Your task to perform on an android device: Go to accessibility settings Image 0: 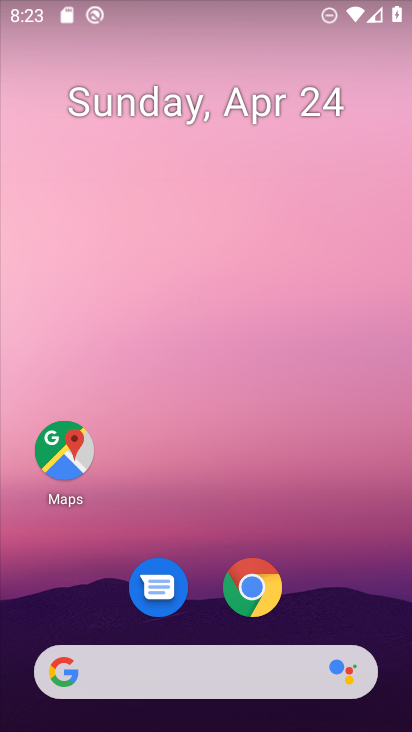
Step 0: drag from (354, 564) to (338, 95)
Your task to perform on an android device: Go to accessibility settings Image 1: 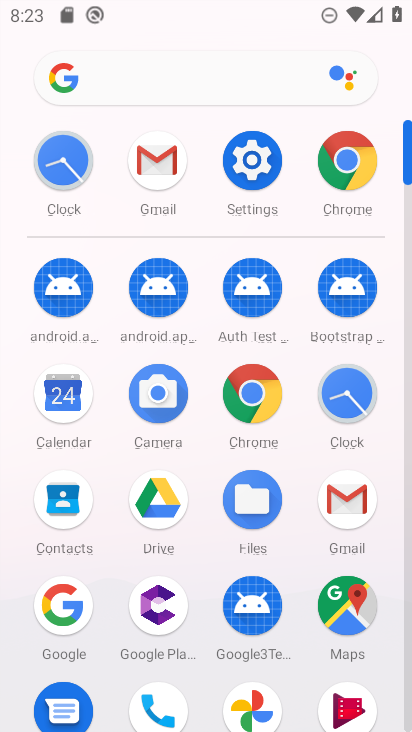
Step 1: click (259, 156)
Your task to perform on an android device: Go to accessibility settings Image 2: 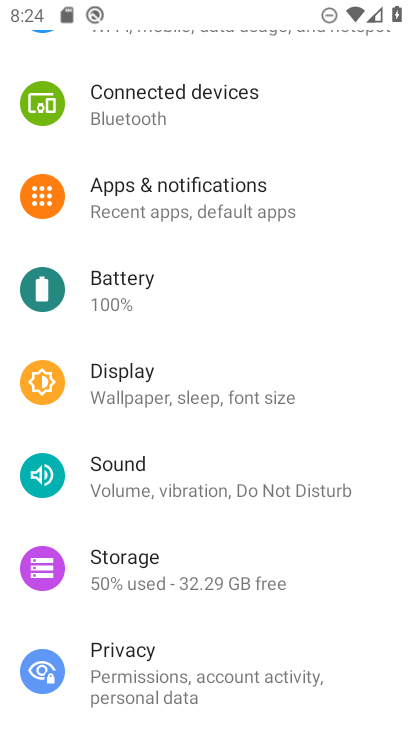
Step 2: drag from (220, 611) to (229, 288)
Your task to perform on an android device: Go to accessibility settings Image 3: 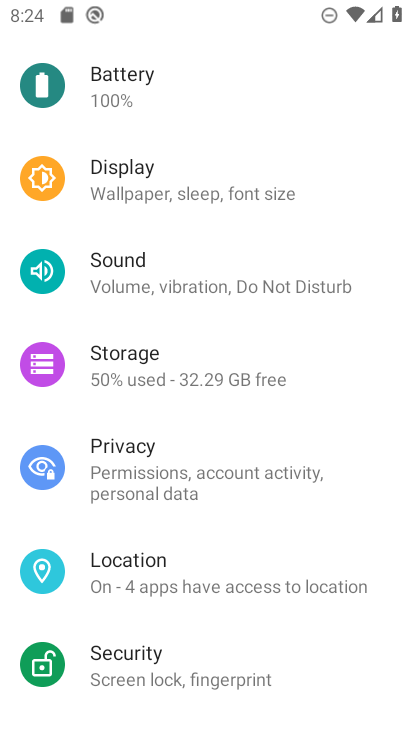
Step 3: drag from (263, 620) to (273, 332)
Your task to perform on an android device: Go to accessibility settings Image 4: 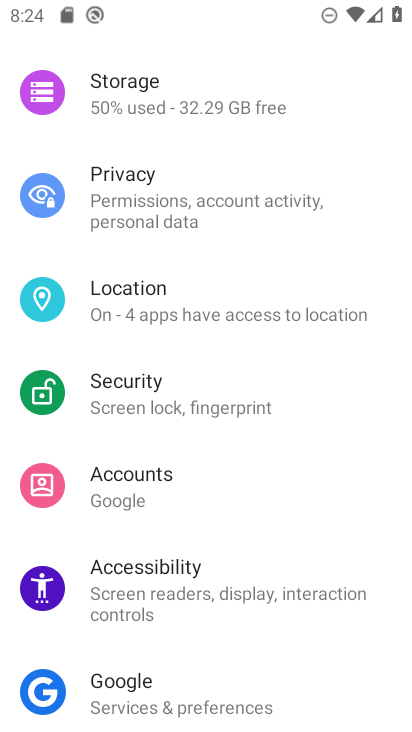
Step 4: click (184, 575)
Your task to perform on an android device: Go to accessibility settings Image 5: 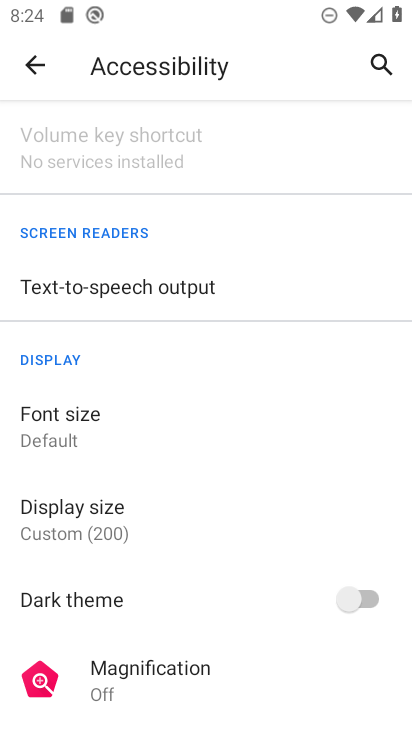
Step 5: task complete